Your task to perform on an android device: show emergency info Image 0: 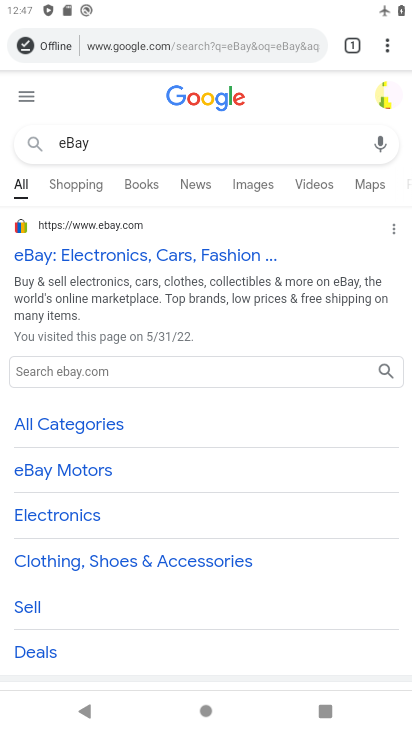
Step 0: click (386, 45)
Your task to perform on an android device: show emergency info Image 1: 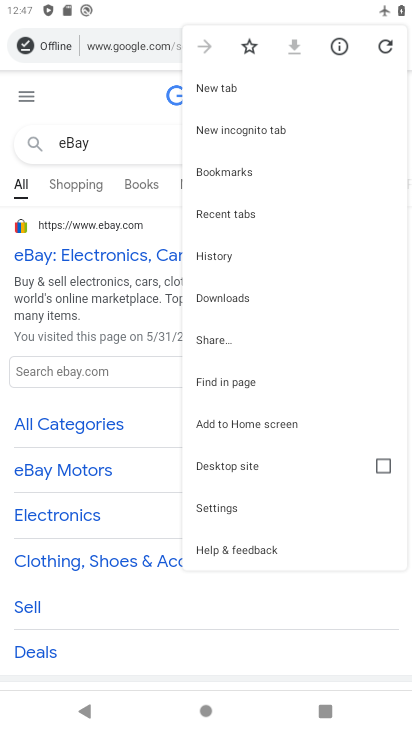
Step 1: press home button
Your task to perform on an android device: show emergency info Image 2: 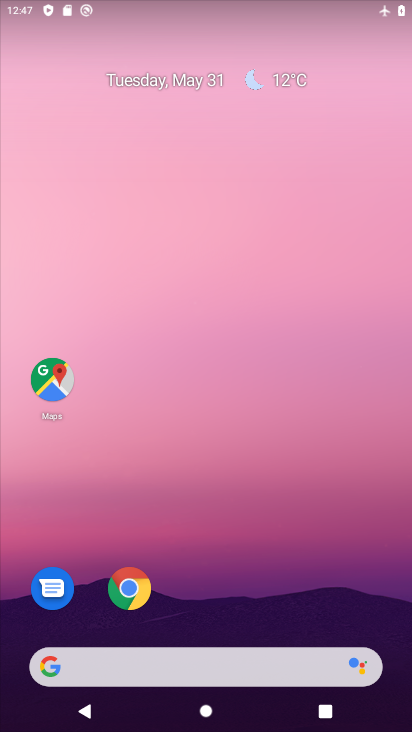
Step 2: drag from (380, 630) to (285, 165)
Your task to perform on an android device: show emergency info Image 3: 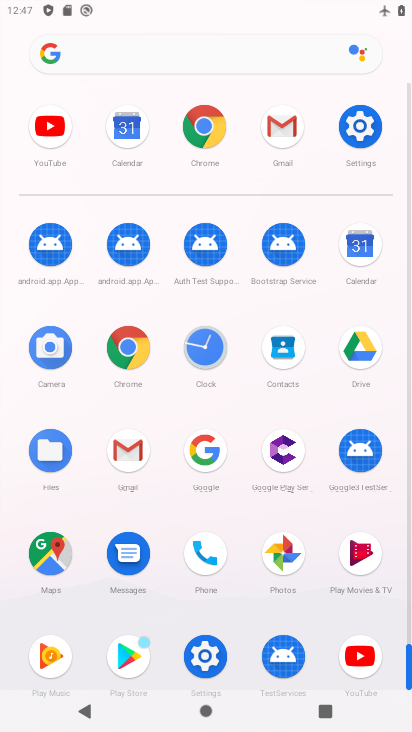
Step 3: click (203, 658)
Your task to perform on an android device: show emergency info Image 4: 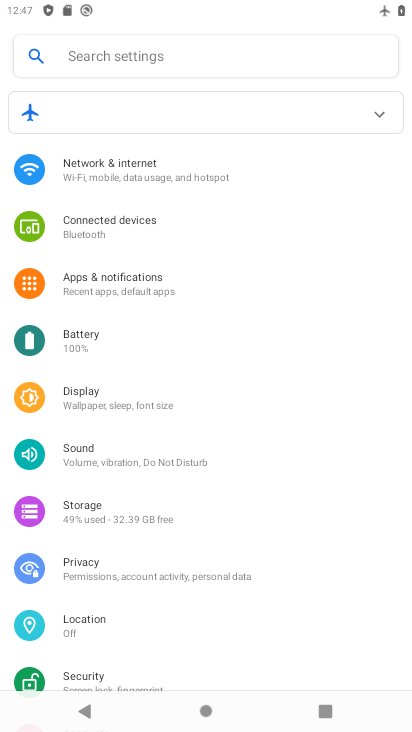
Step 4: drag from (242, 621) to (260, 239)
Your task to perform on an android device: show emergency info Image 5: 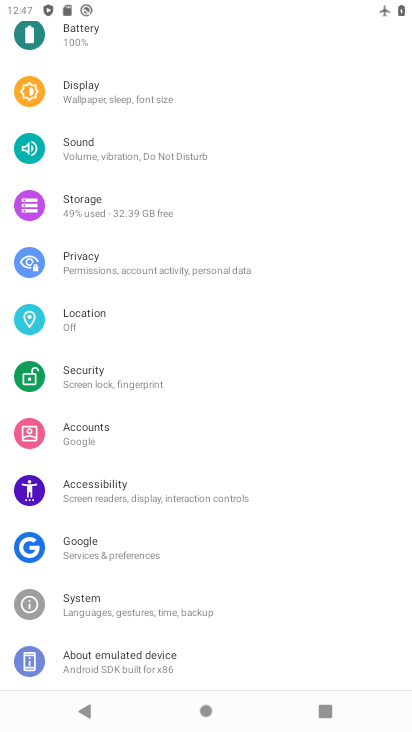
Step 5: click (118, 658)
Your task to perform on an android device: show emergency info Image 6: 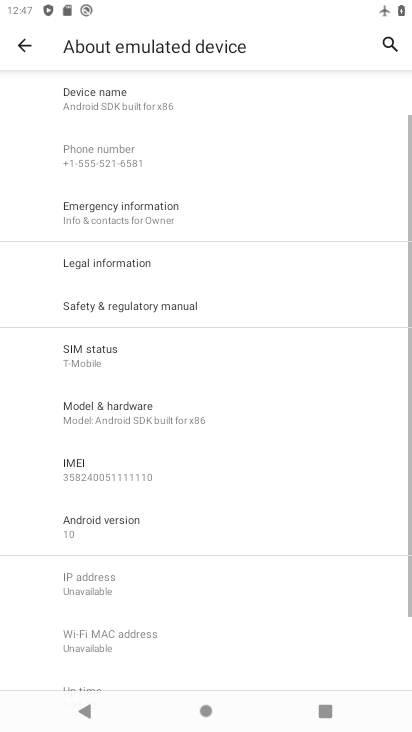
Step 6: click (121, 211)
Your task to perform on an android device: show emergency info Image 7: 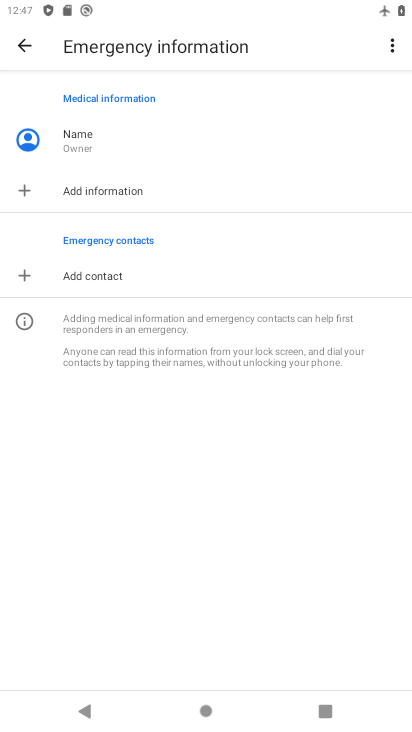
Step 7: task complete